Your task to perform on an android device: Open calendar and show me the fourth week of next month Image 0: 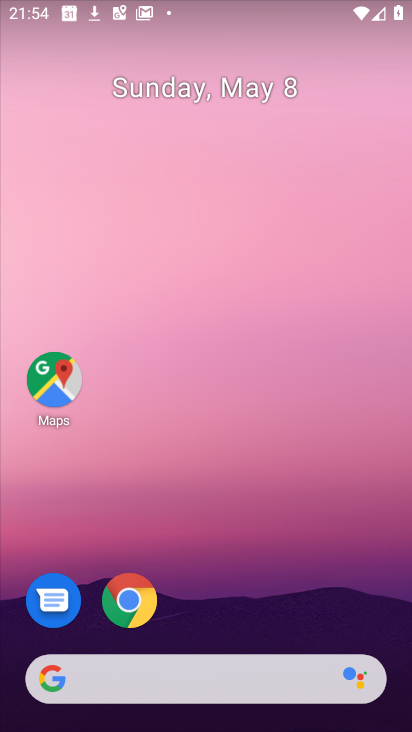
Step 0: drag from (289, 703) to (255, 181)
Your task to perform on an android device: Open calendar and show me the fourth week of next month Image 1: 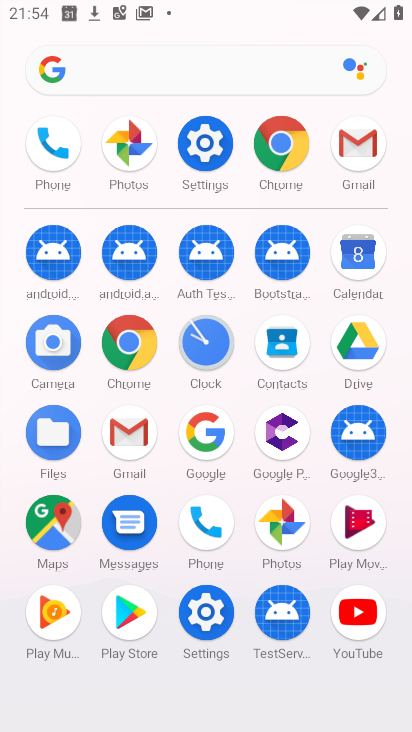
Step 1: click (361, 265)
Your task to perform on an android device: Open calendar and show me the fourth week of next month Image 2: 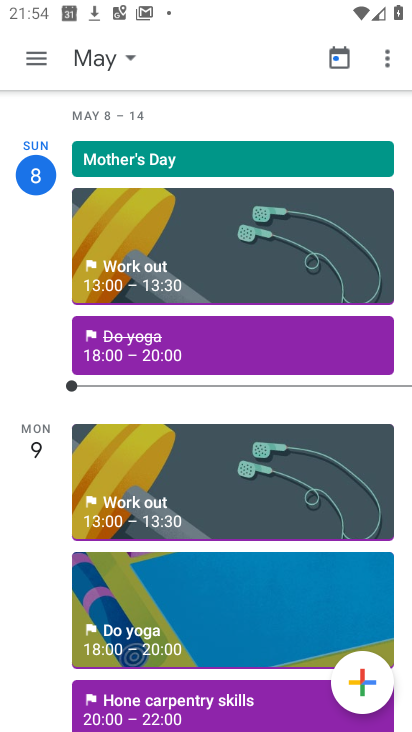
Step 2: click (40, 65)
Your task to perform on an android device: Open calendar and show me the fourth week of next month Image 3: 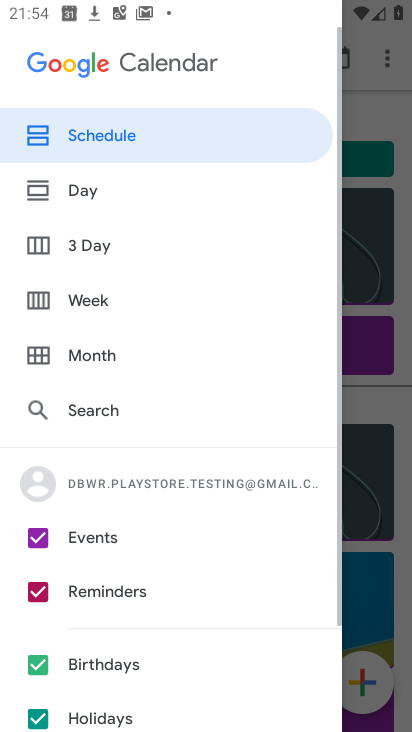
Step 3: click (98, 352)
Your task to perform on an android device: Open calendar and show me the fourth week of next month Image 4: 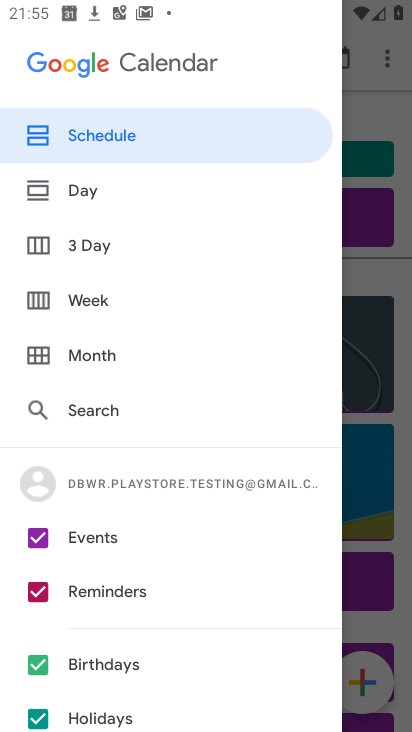
Step 4: click (86, 346)
Your task to perform on an android device: Open calendar and show me the fourth week of next month Image 5: 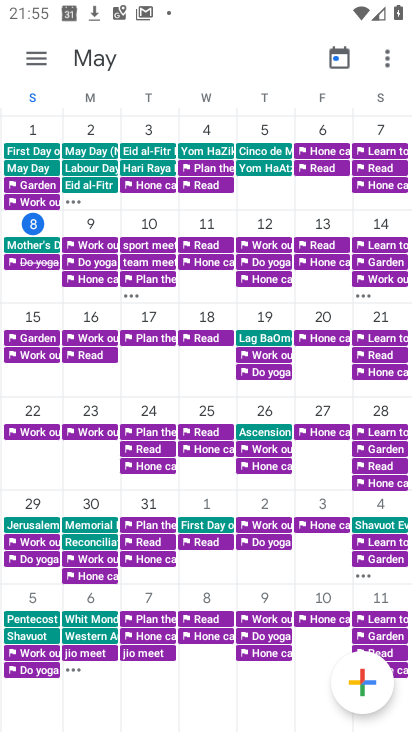
Step 5: drag from (384, 404) to (0, 481)
Your task to perform on an android device: Open calendar and show me the fourth week of next month Image 6: 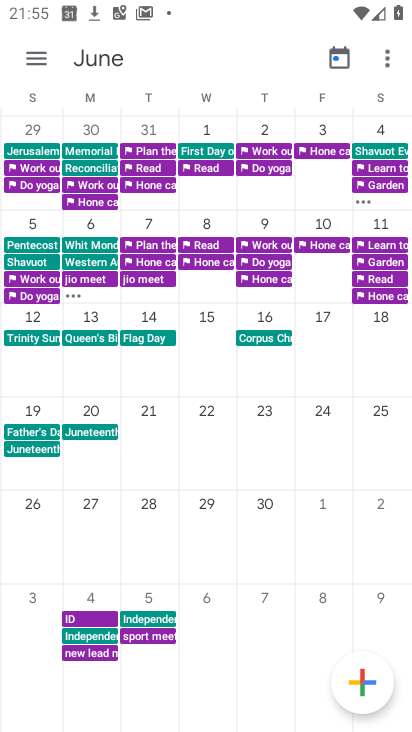
Step 6: click (78, 410)
Your task to perform on an android device: Open calendar and show me the fourth week of next month Image 7: 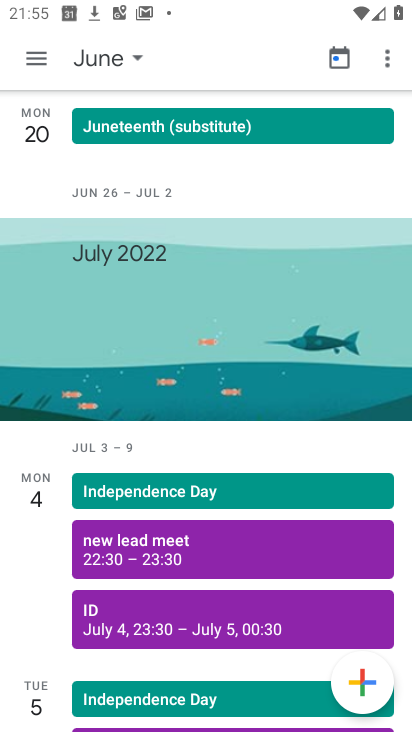
Step 7: task complete